Your task to perform on an android device: Open ESPN.com Image 0: 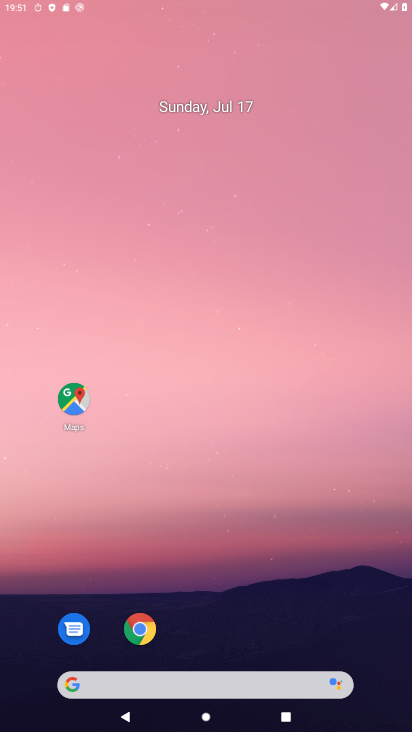
Step 0: drag from (295, 572) to (317, 105)
Your task to perform on an android device: Open ESPN.com Image 1: 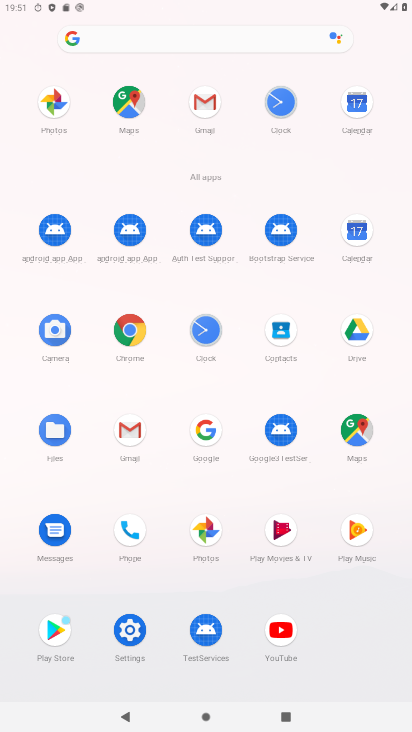
Step 1: click (128, 327)
Your task to perform on an android device: Open ESPN.com Image 2: 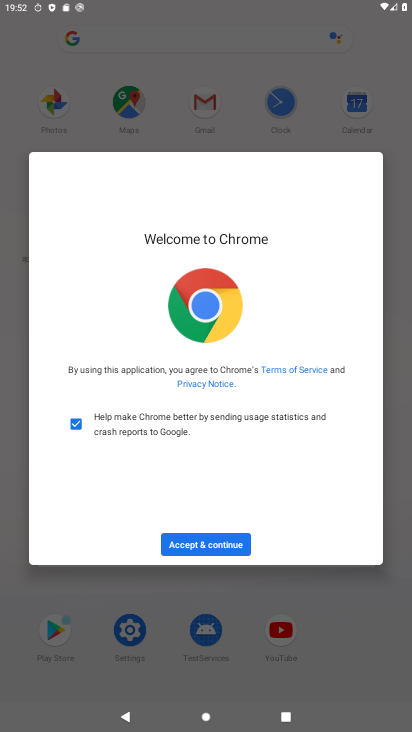
Step 2: click (214, 548)
Your task to perform on an android device: Open ESPN.com Image 3: 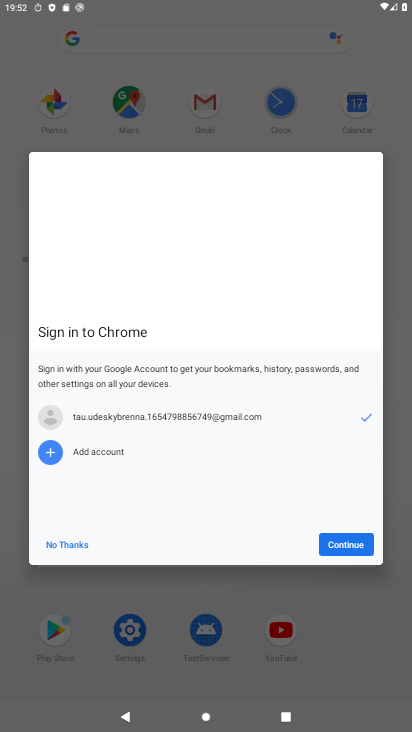
Step 3: click (340, 540)
Your task to perform on an android device: Open ESPN.com Image 4: 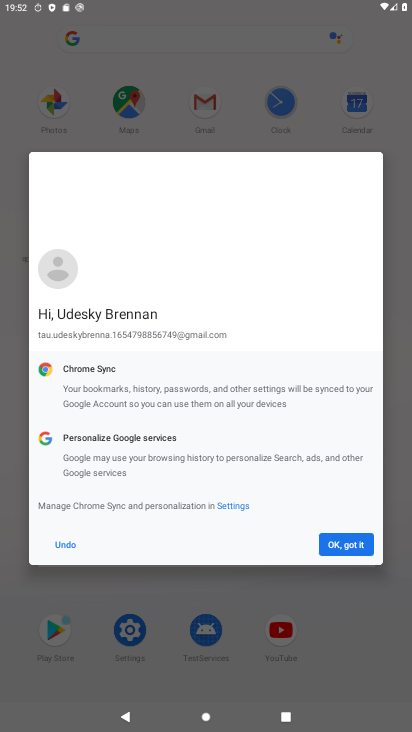
Step 4: click (340, 540)
Your task to perform on an android device: Open ESPN.com Image 5: 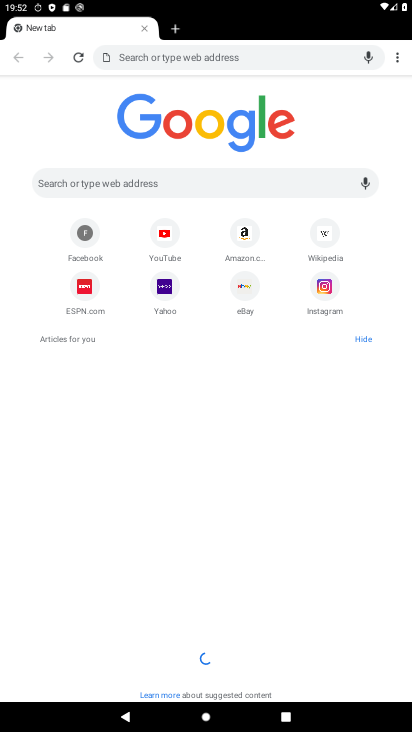
Step 5: click (87, 296)
Your task to perform on an android device: Open ESPN.com Image 6: 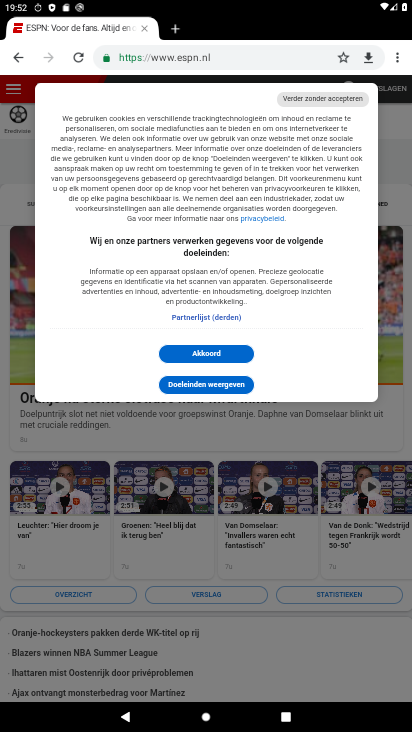
Step 6: task complete